Your task to perform on an android device: turn notification dots on Image 0: 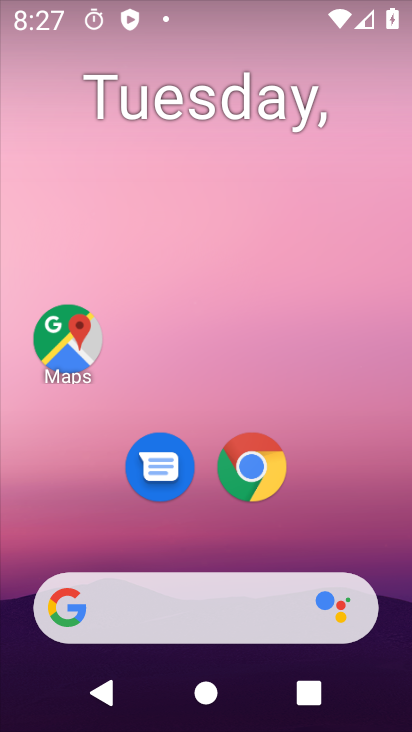
Step 0: drag from (346, 537) to (292, 43)
Your task to perform on an android device: turn notification dots on Image 1: 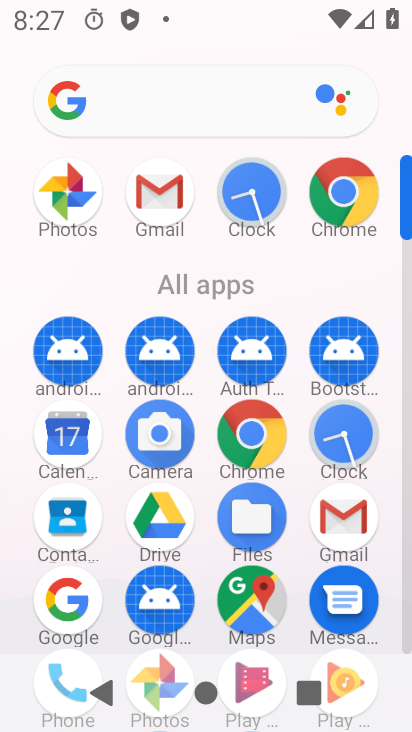
Step 1: click (404, 648)
Your task to perform on an android device: turn notification dots on Image 2: 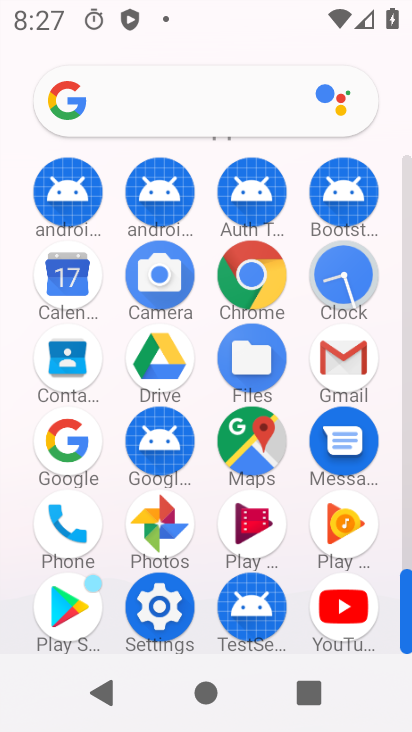
Step 2: click (175, 605)
Your task to perform on an android device: turn notification dots on Image 3: 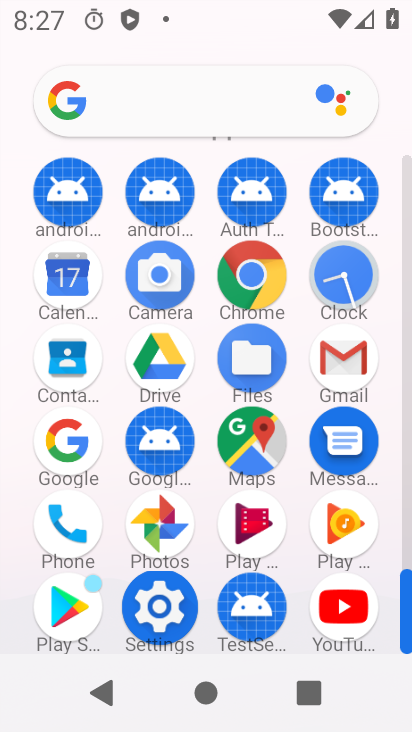
Step 3: click (175, 605)
Your task to perform on an android device: turn notification dots on Image 4: 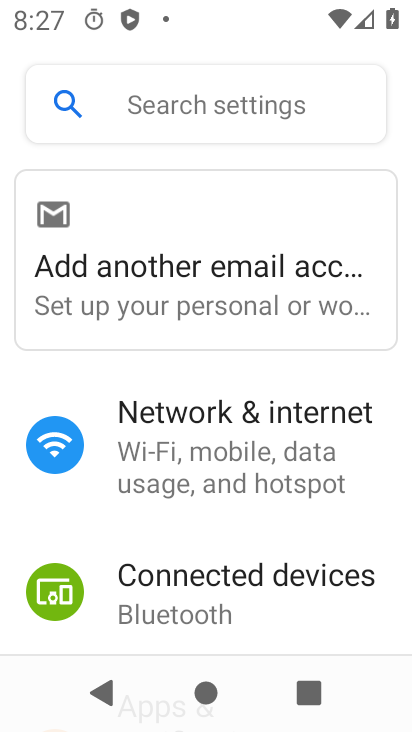
Step 4: drag from (306, 625) to (309, 209)
Your task to perform on an android device: turn notification dots on Image 5: 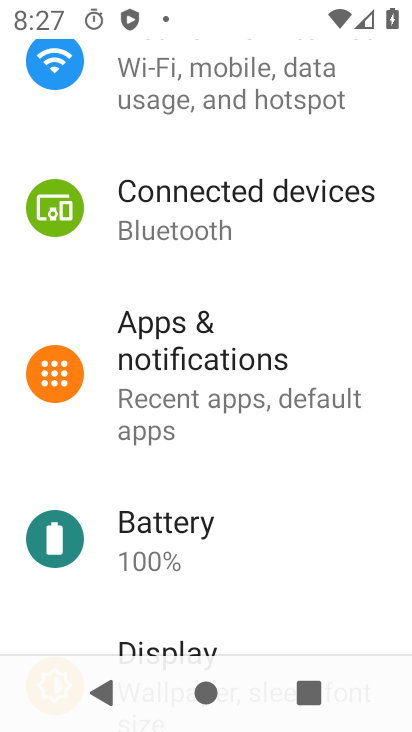
Step 5: click (325, 408)
Your task to perform on an android device: turn notification dots on Image 6: 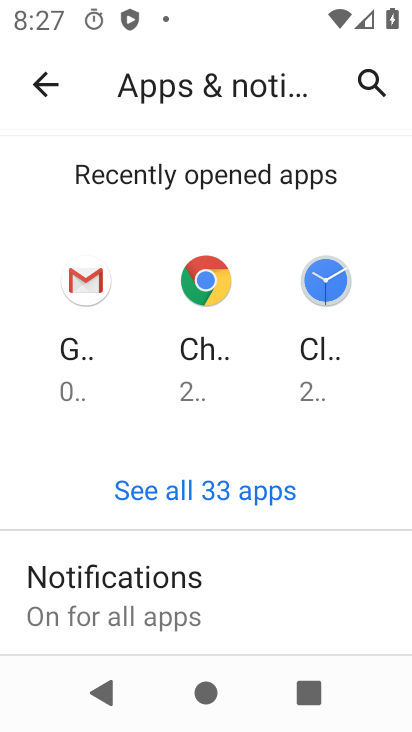
Step 6: drag from (319, 595) to (275, 217)
Your task to perform on an android device: turn notification dots on Image 7: 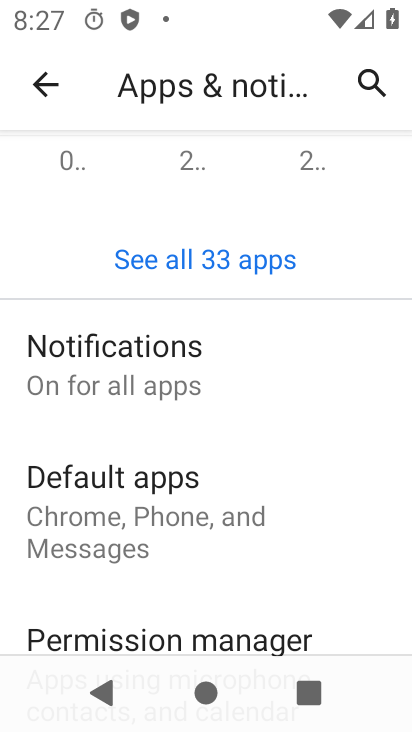
Step 7: click (273, 364)
Your task to perform on an android device: turn notification dots on Image 8: 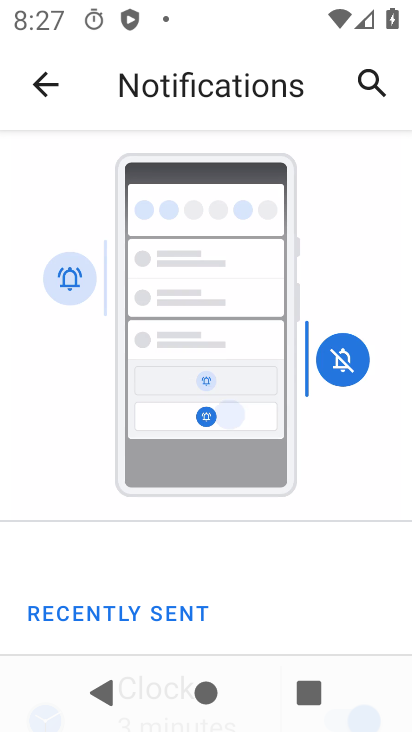
Step 8: drag from (301, 571) to (220, 82)
Your task to perform on an android device: turn notification dots on Image 9: 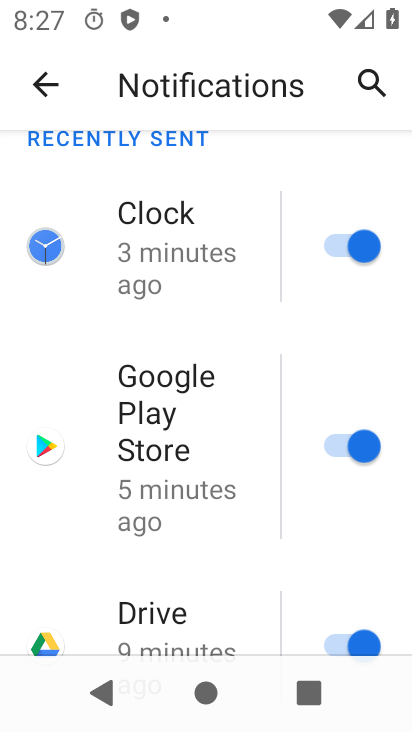
Step 9: drag from (258, 572) to (228, 90)
Your task to perform on an android device: turn notification dots on Image 10: 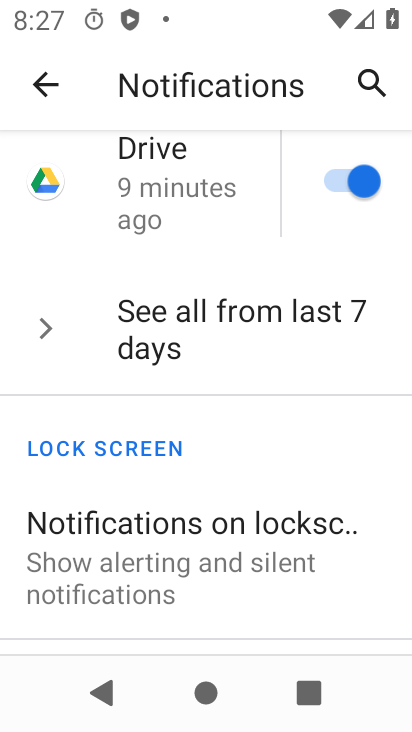
Step 10: drag from (284, 473) to (240, 127)
Your task to perform on an android device: turn notification dots on Image 11: 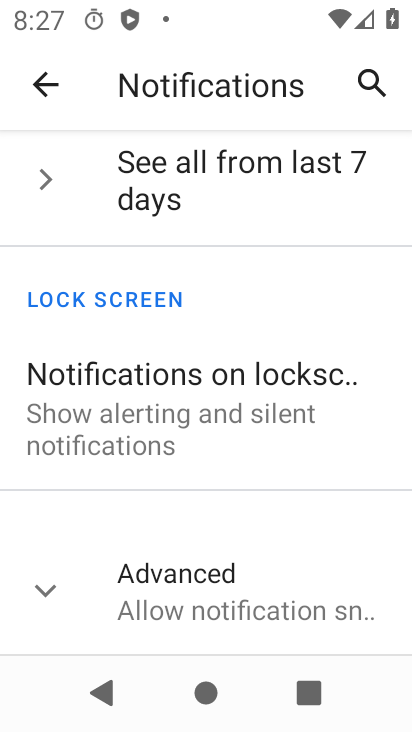
Step 11: click (290, 592)
Your task to perform on an android device: turn notification dots on Image 12: 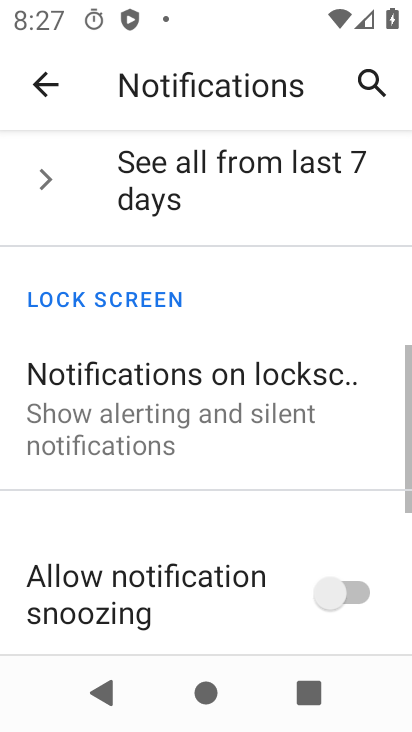
Step 12: task complete